Your task to perform on an android device: Show me popular videos on Youtube Image 0: 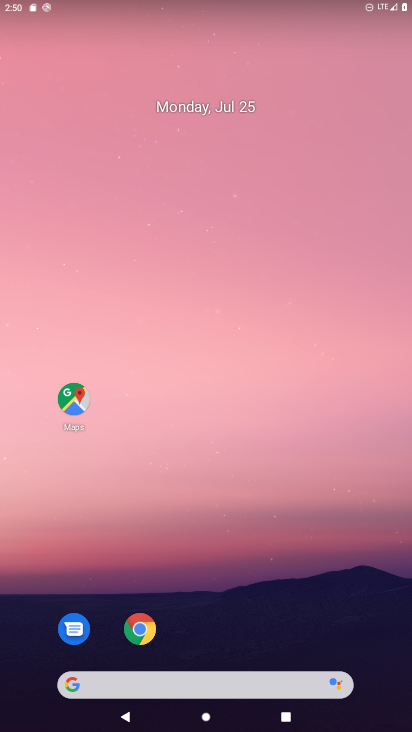
Step 0: drag from (279, 500) to (266, 166)
Your task to perform on an android device: Show me popular videos on Youtube Image 1: 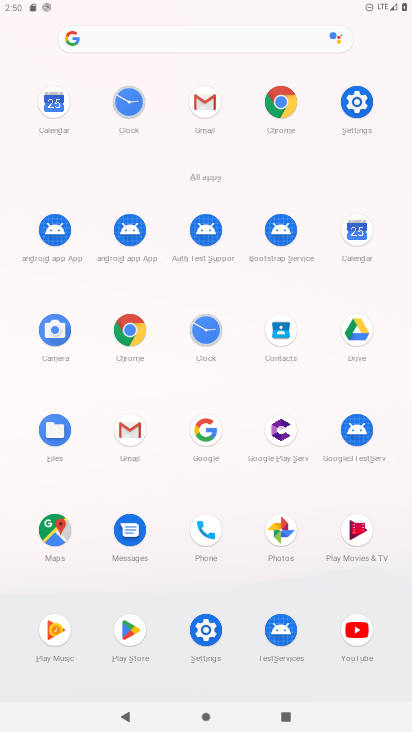
Step 1: click (362, 625)
Your task to perform on an android device: Show me popular videos on Youtube Image 2: 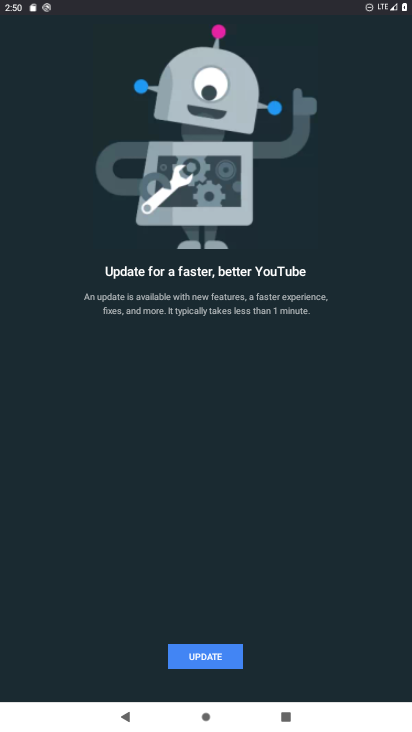
Step 2: click (224, 655)
Your task to perform on an android device: Show me popular videos on Youtube Image 3: 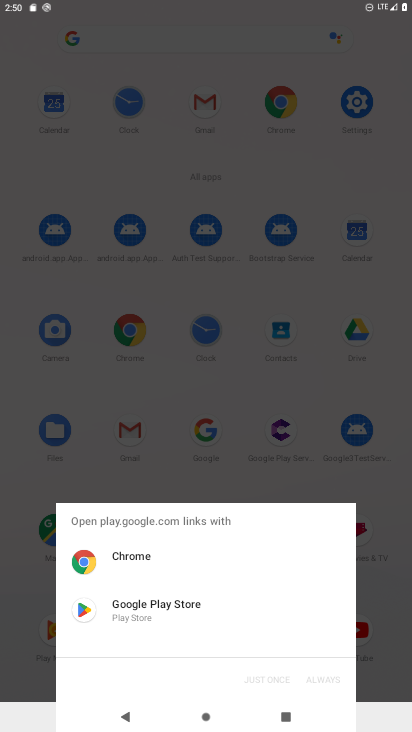
Step 3: click (133, 601)
Your task to perform on an android device: Show me popular videos on Youtube Image 4: 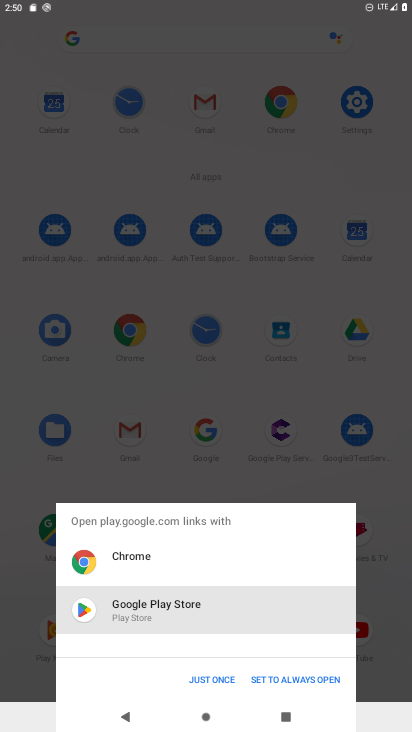
Step 4: click (223, 677)
Your task to perform on an android device: Show me popular videos on Youtube Image 5: 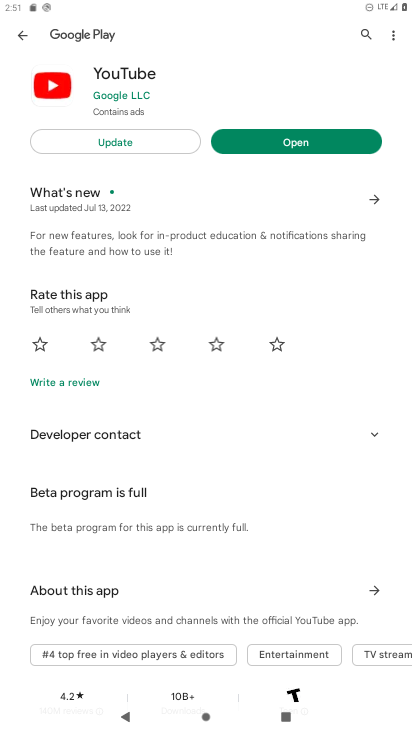
Step 5: click (136, 141)
Your task to perform on an android device: Show me popular videos on Youtube Image 6: 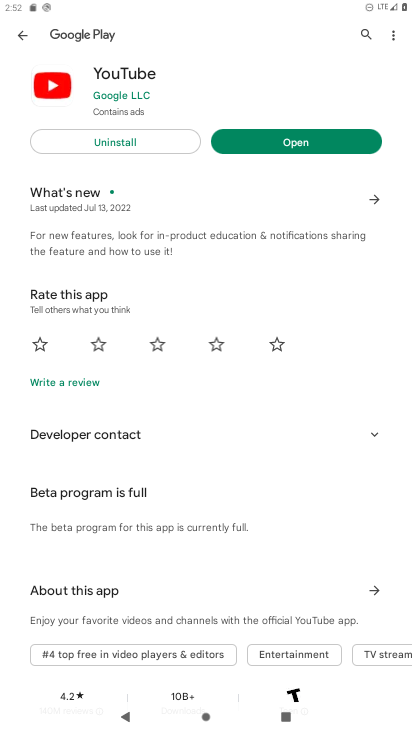
Step 6: click (272, 130)
Your task to perform on an android device: Show me popular videos on Youtube Image 7: 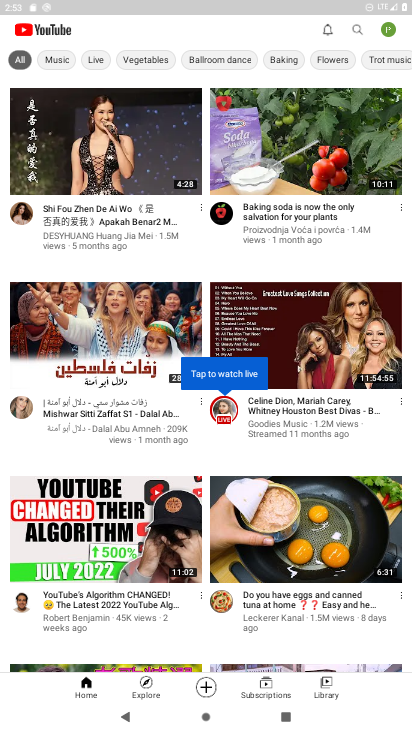
Step 7: click (349, 29)
Your task to perform on an android device: Show me popular videos on Youtube Image 8: 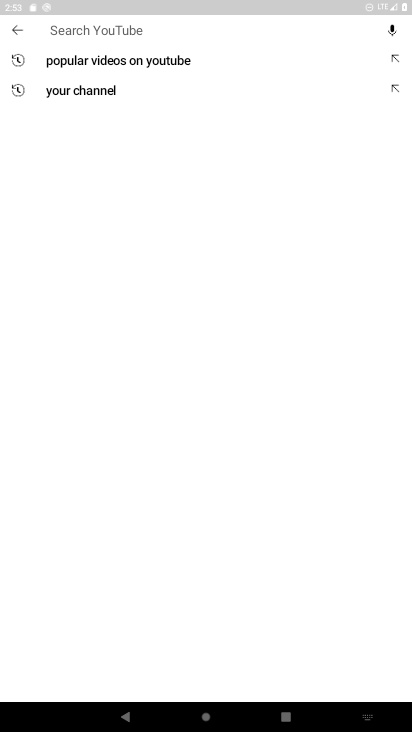
Step 8: click (105, 62)
Your task to perform on an android device: Show me popular videos on Youtube Image 9: 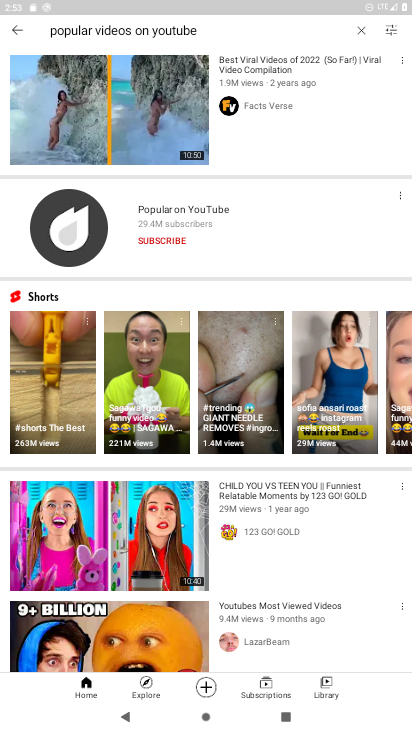
Step 9: task complete